Your task to perform on an android device: Open Youtube and go to the subscriptions tab Image 0: 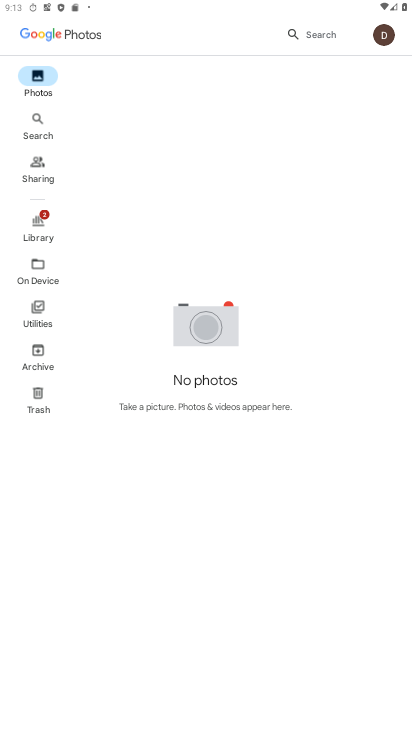
Step 0: press home button
Your task to perform on an android device: Open Youtube and go to the subscriptions tab Image 1: 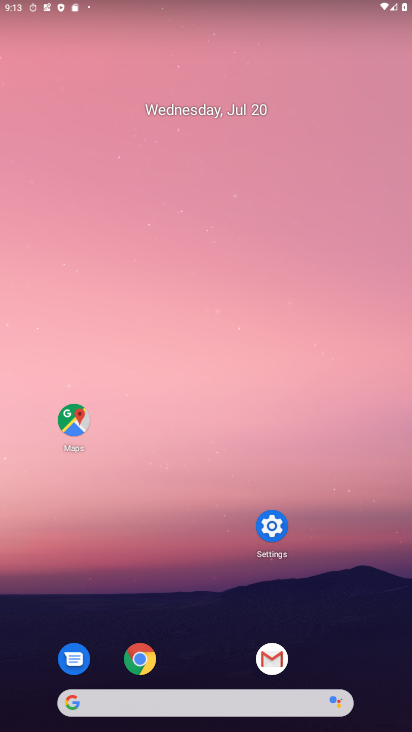
Step 1: drag from (288, 692) to (176, 195)
Your task to perform on an android device: Open Youtube and go to the subscriptions tab Image 2: 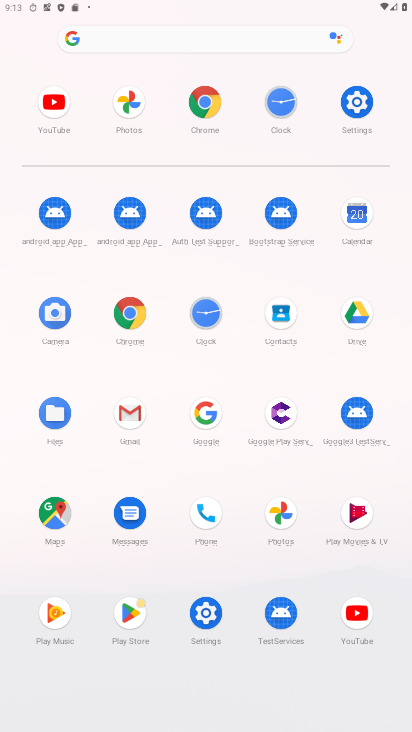
Step 2: click (357, 619)
Your task to perform on an android device: Open Youtube and go to the subscriptions tab Image 3: 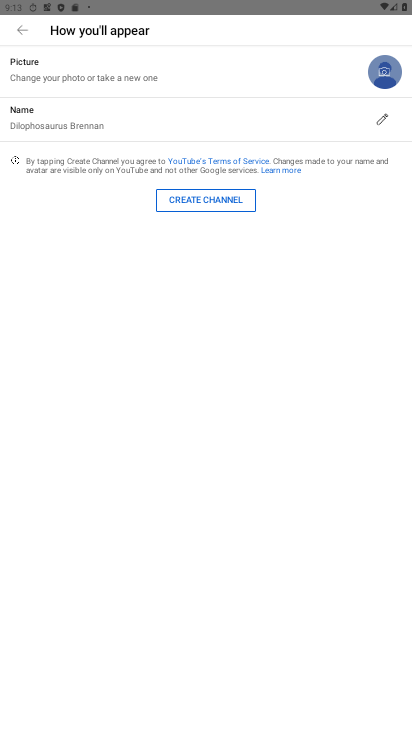
Step 3: click (15, 37)
Your task to perform on an android device: Open Youtube and go to the subscriptions tab Image 4: 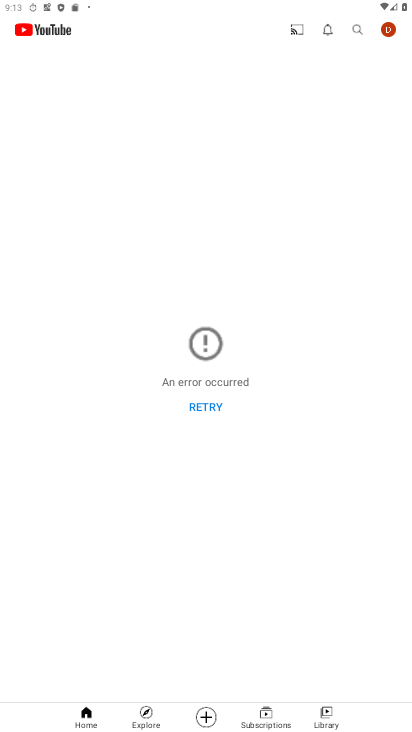
Step 4: click (276, 711)
Your task to perform on an android device: Open Youtube and go to the subscriptions tab Image 5: 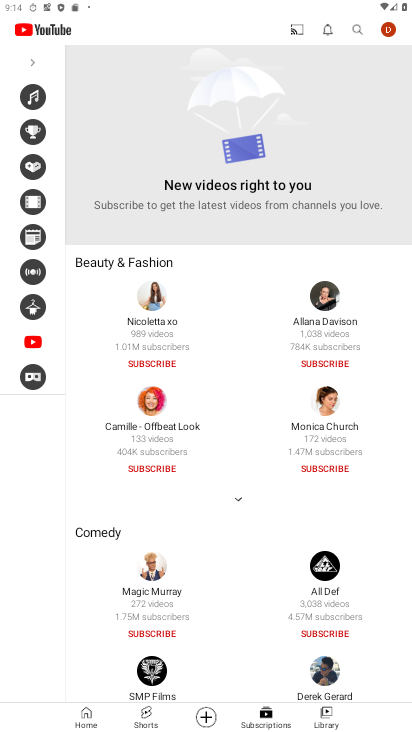
Step 5: task complete